Your task to perform on an android device: Search for pizza restaurants on Maps Image 0: 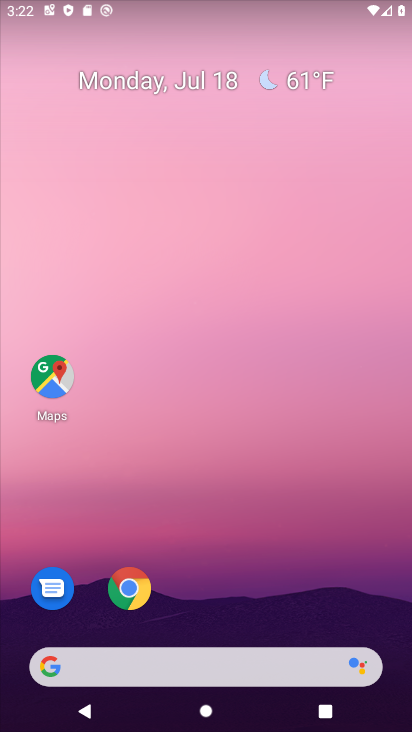
Step 0: click (34, 369)
Your task to perform on an android device: Search for pizza restaurants on Maps Image 1: 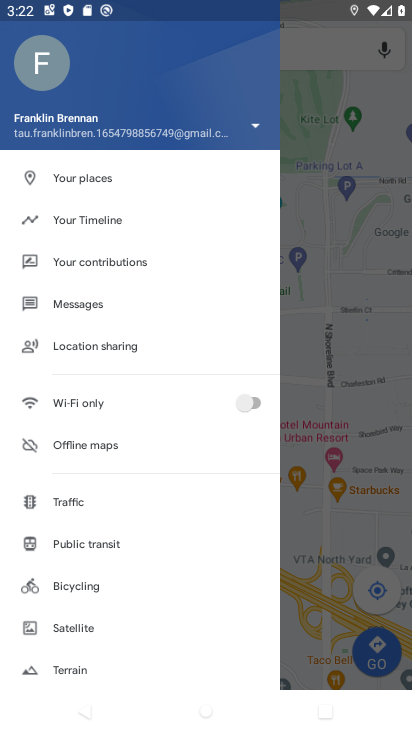
Step 1: click (372, 575)
Your task to perform on an android device: Search for pizza restaurants on Maps Image 2: 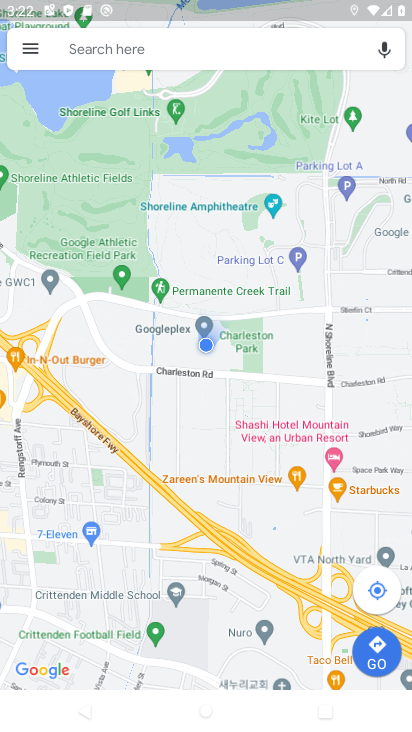
Step 2: click (311, 52)
Your task to perform on an android device: Search for pizza restaurants on Maps Image 3: 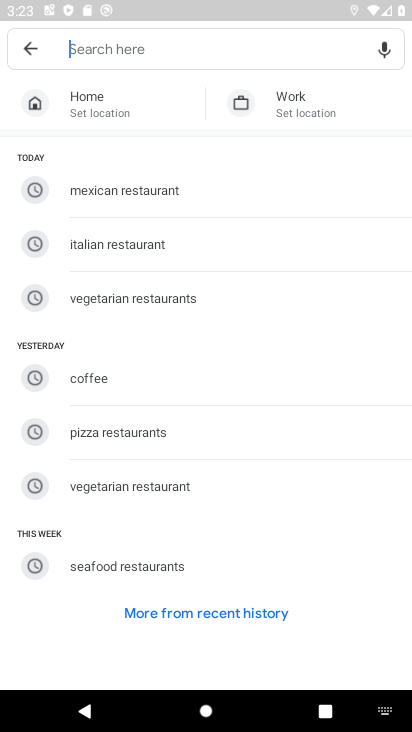
Step 3: click (165, 431)
Your task to perform on an android device: Search for pizza restaurants on Maps Image 4: 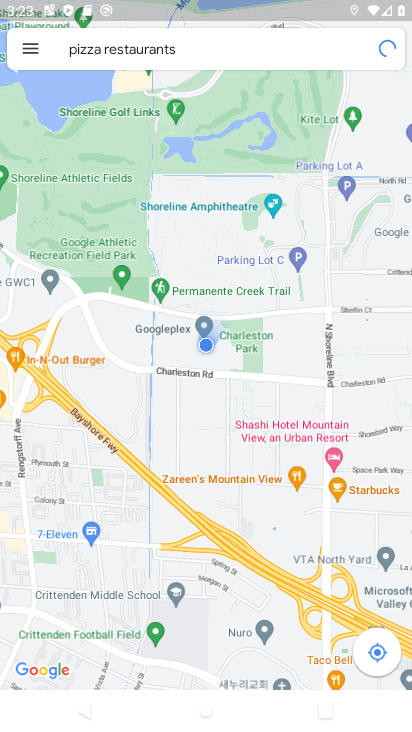
Step 4: task complete